Your task to perform on an android device: open chrome and create a bookmark for the current page Image 0: 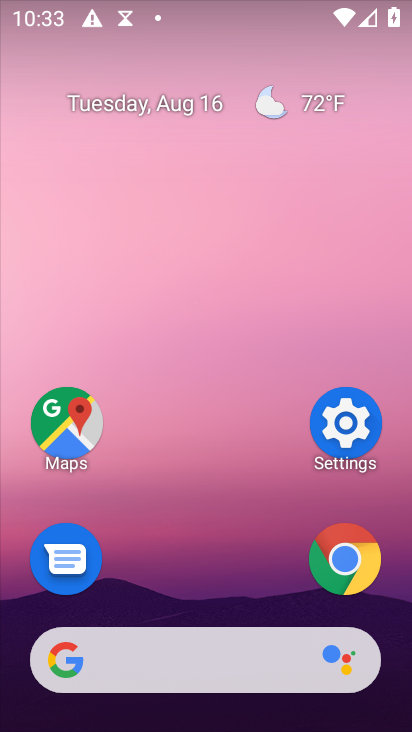
Step 0: click (350, 556)
Your task to perform on an android device: open chrome and create a bookmark for the current page Image 1: 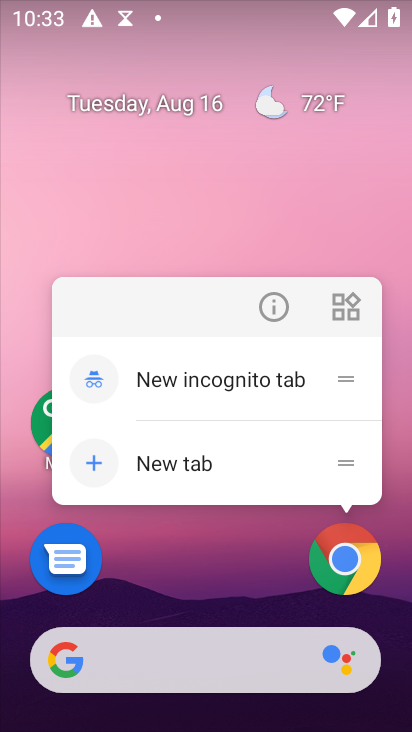
Step 1: click (350, 556)
Your task to perform on an android device: open chrome and create a bookmark for the current page Image 2: 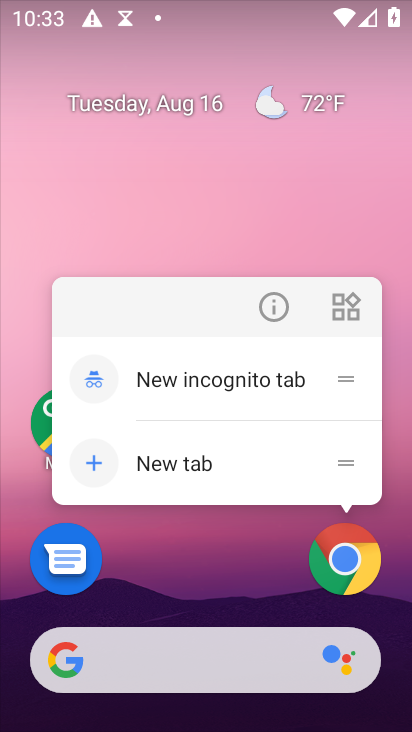
Step 2: click (343, 560)
Your task to perform on an android device: open chrome and create a bookmark for the current page Image 3: 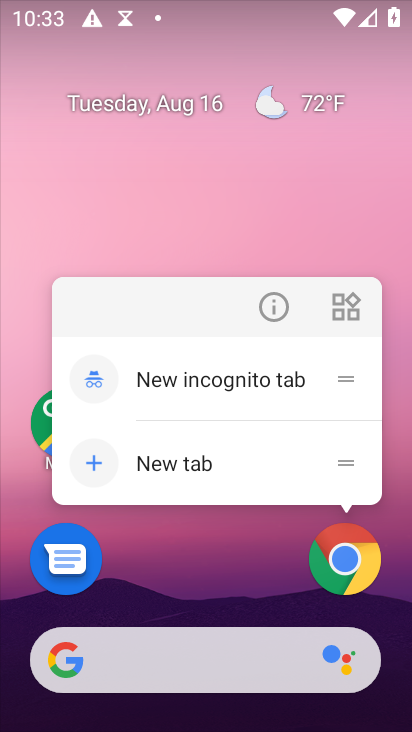
Step 3: click (343, 560)
Your task to perform on an android device: open chrome and create a bookmark for the current page Image 4: 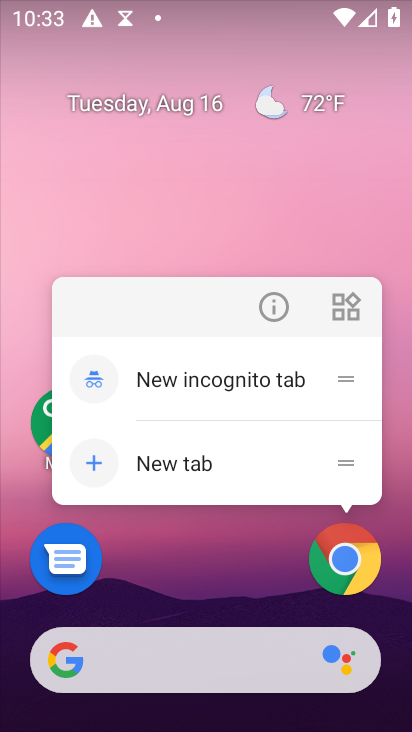
Step 4: click (343, 560)
Your task to perform on an android device: open chrome and create a bookmark for the current page Image 5: 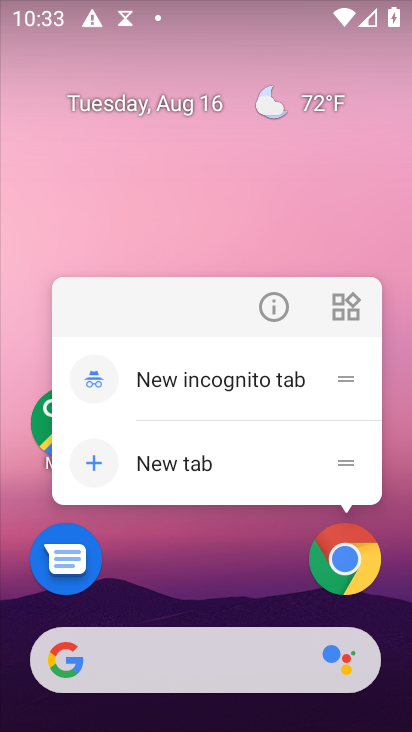
Step 5: click (343, 561)
Your task to perform on an android device: open chrome and create a bookmark for the current page Image 6: 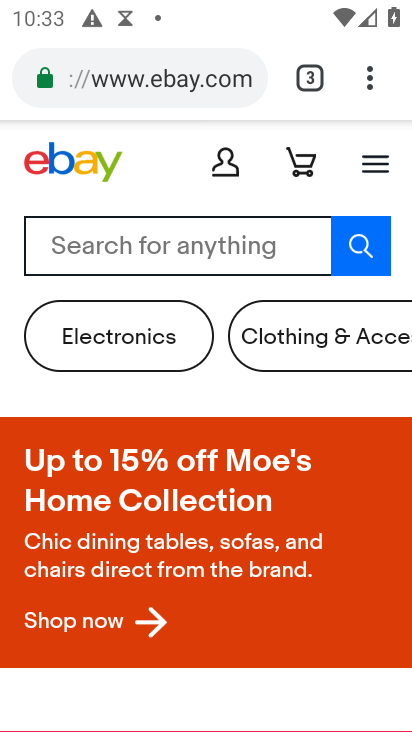
Step 6: click (367, 100)
Your task to perform on an android device: open chrome and create a bookmark for the current page Image 7: 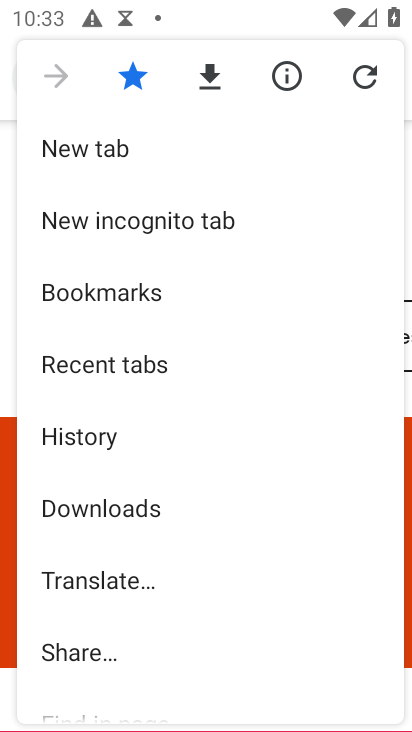
Step 7: task complete